Your task to perform on an android device: Go to Yahoo.com Image 0: 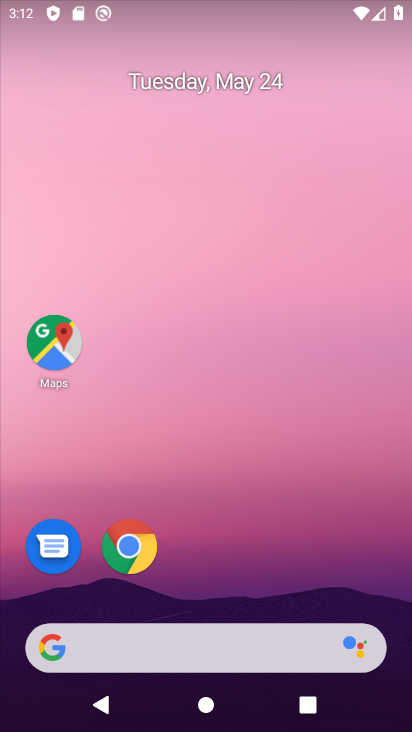
Step 0: drag from (253, 717) to (223, 308)
Your task to perform on an android device: Go to Yahoo.com Image 1: 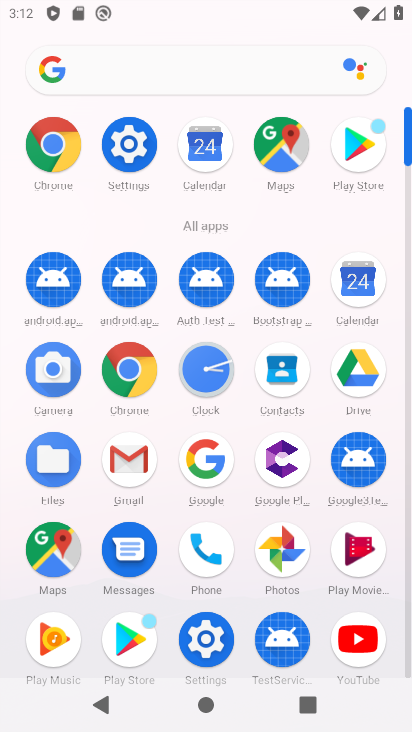
Step 1: click (51, 135)
Your task to perform on an android device: Go to Yahoo.com Image 2: 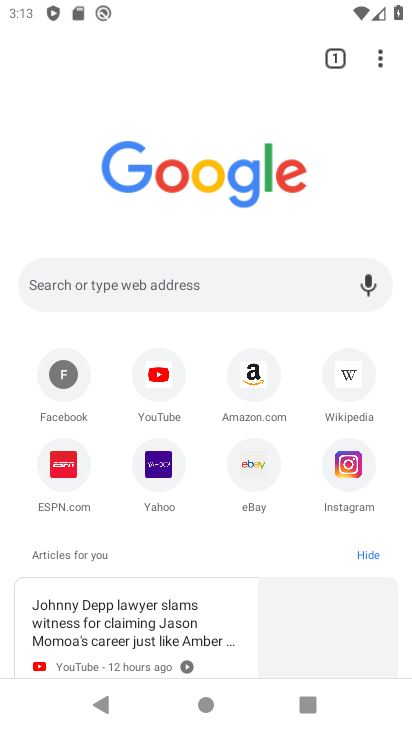
Step 2: click (156, 447)
Your task to perform on an android device: Go to Yahoo.com Image 3: 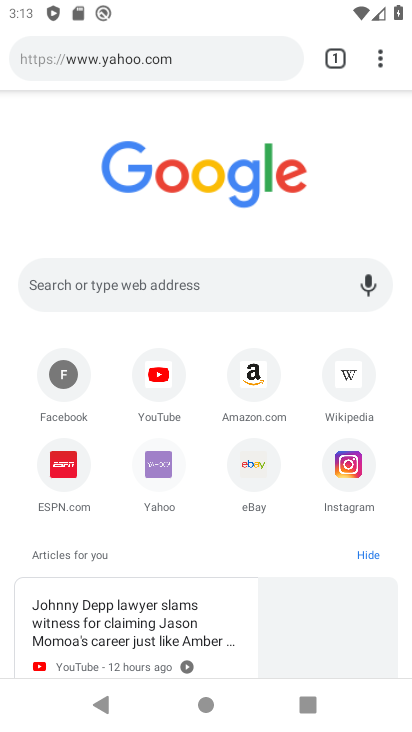
Step 3: click (163, 451)
Your task to perform on an android device: Go to Yahoo.com Image 4: 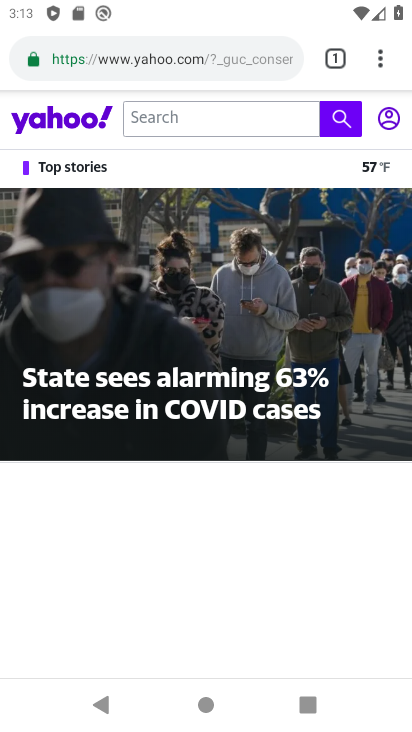
Step 4: task complete